Your task to perform on an android device: Open display settings Image 0: 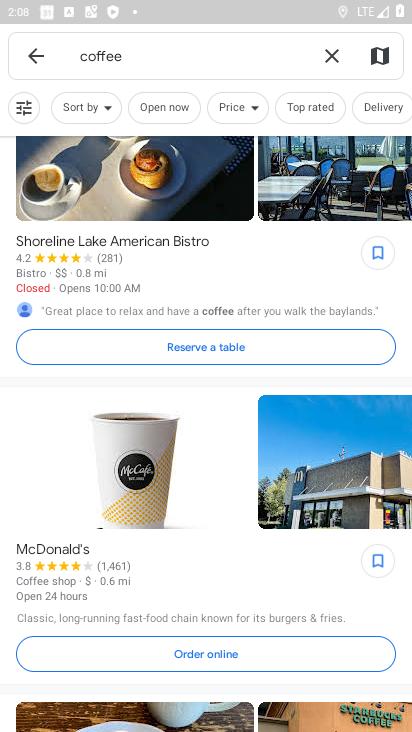
Step 0: press home button
Your task to perform on an android device: Open display settings Image 1: 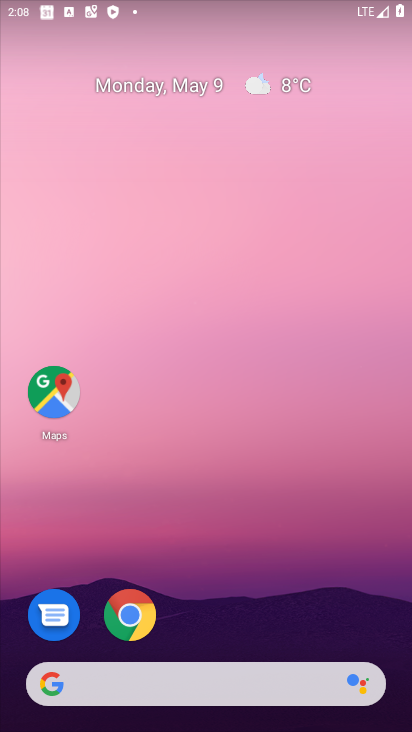
Step 1: drag from (376, 624) to (280, 73)
Your task to perform on an android device: Open display settings Image 2: 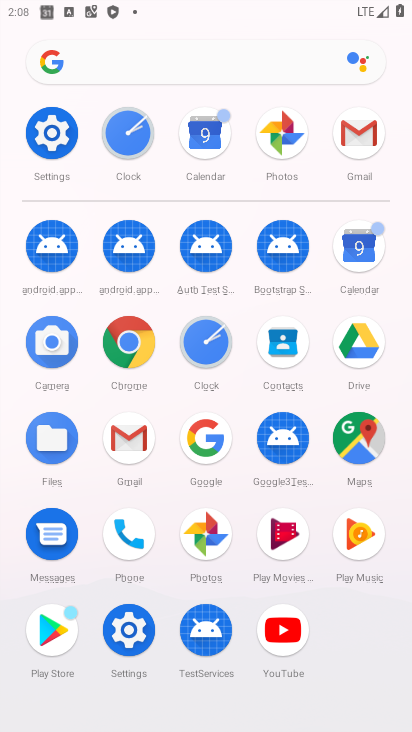
Step 2: click (126, 629)
Your task to perform on an android device: Open display settings Image 3: 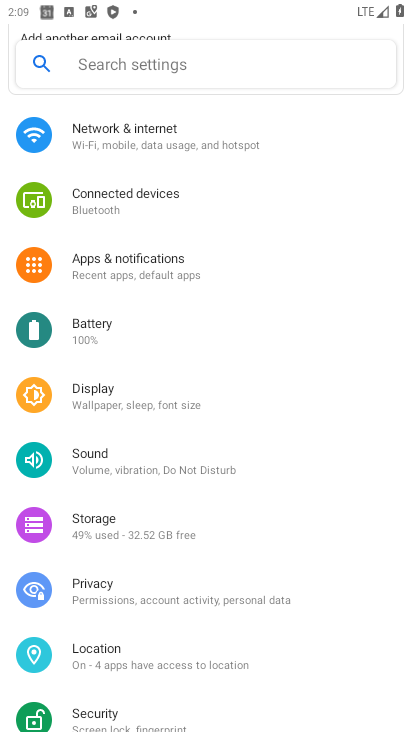
Step 3: click (97, 399)
Your task to perform on an android device: Open display settings Image 4: 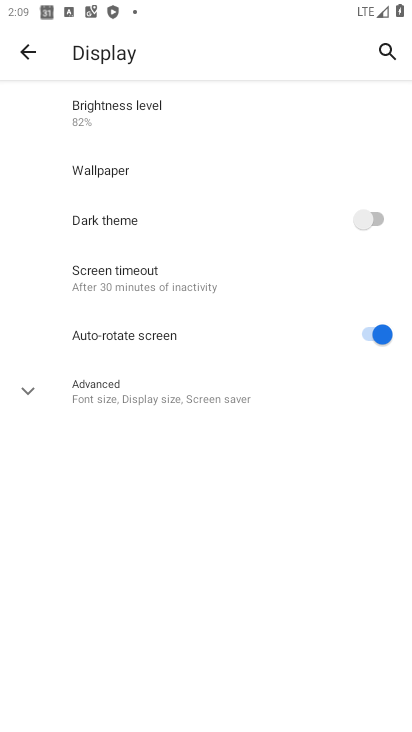
Step 4: click (25, 396)
Your task to perform on an android device: Open display settings Image 5: 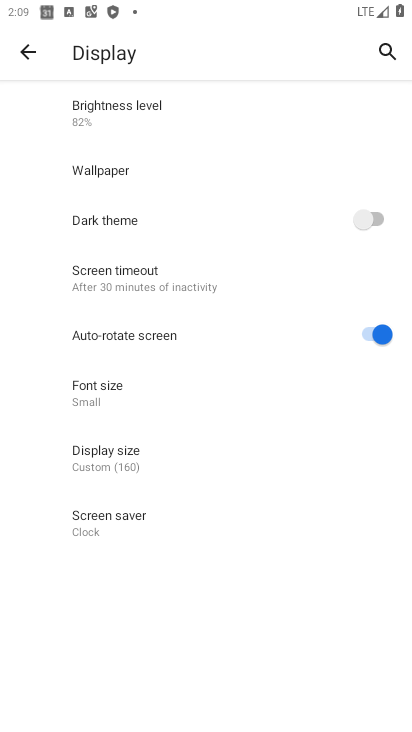
Step 5: task complete